Your task to perform on an android device: Show me the alarms in the clock app Image 0: 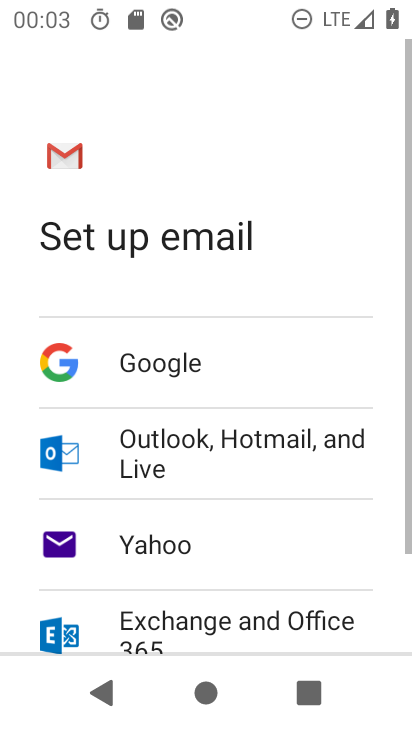
Step 0: press home button
Your task to perform on an android device: Show me the alarms in the clock app Image 1: 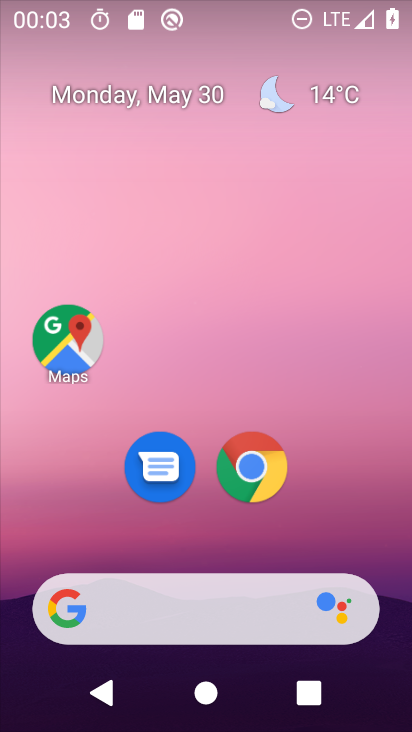
Step 1: drag from (204, 547) to (230, 122)
Your task to perform on an android device: Show me the alarms in the clock app Image 2: 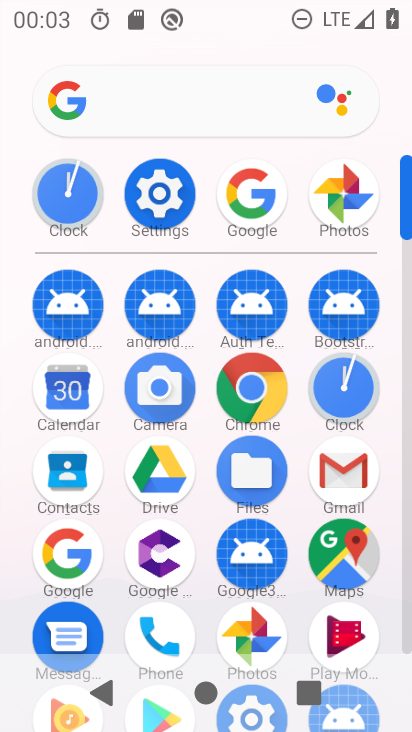
Step 2: click (334, 400)
Your task to perform on an android device: Show me the alarms in the clock app Image 3: 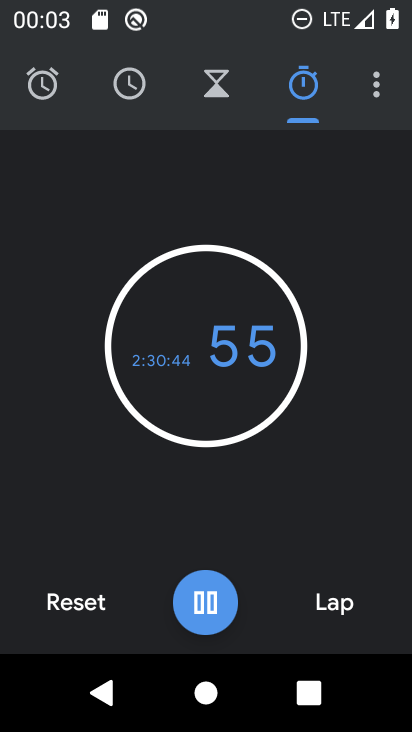
Step 3: click (43, 95)
Your task to perform on an android device: Show me the alarms in the clock app Image 4: 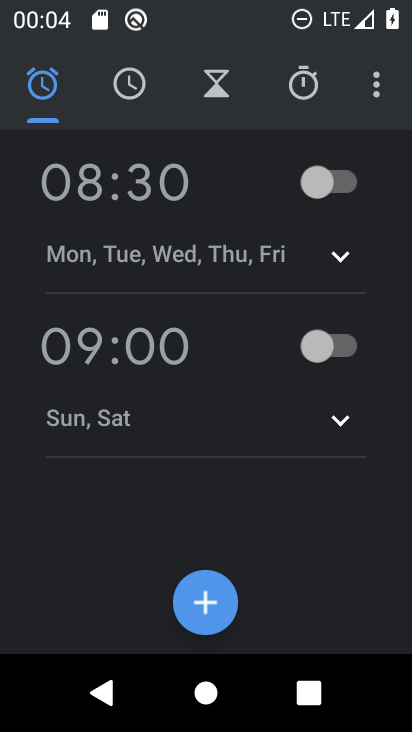
Step 4: task complete